Your task to perform on an android device: Search for vegetarian restaurants on Maps Image 0: 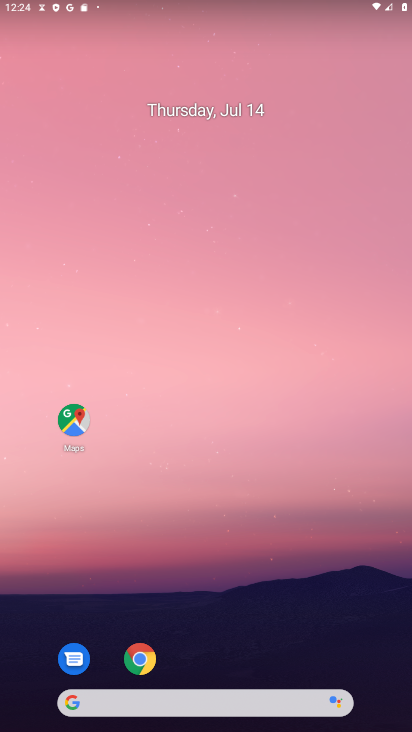
Step 0: click (77, 427)
Your task to perform on an android device: Search for vegetarian restaurants on Maps Image 1: 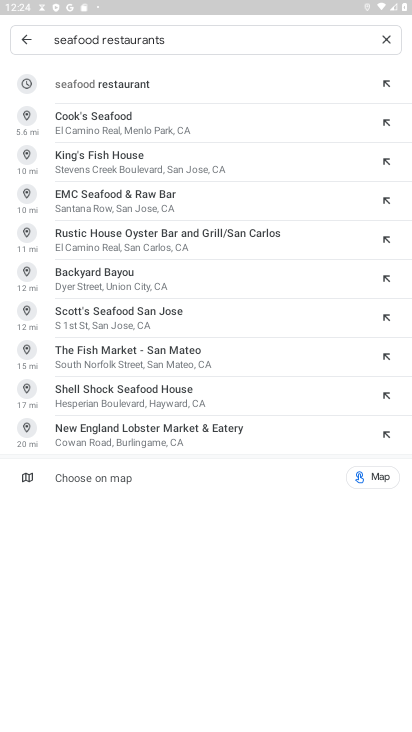
Step 1: click (382, 37)
Your task to perform on an android device: Search for vegetarian restaurants on Maps Image 2: 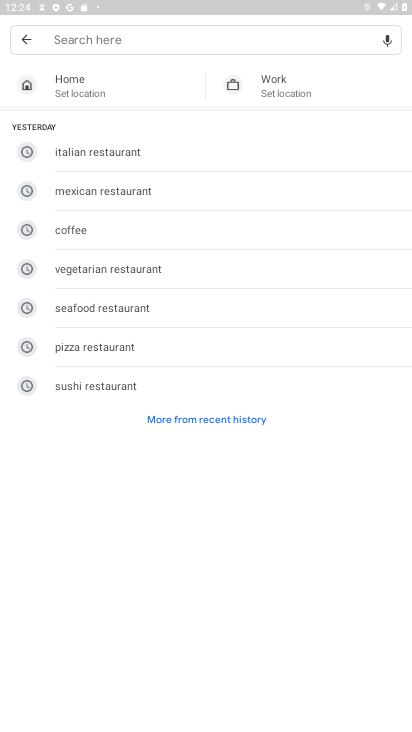
Step 2: click (80, 37)
Your task to perform on an android device: Search for vegetarian restaurants on Maps Image 3: 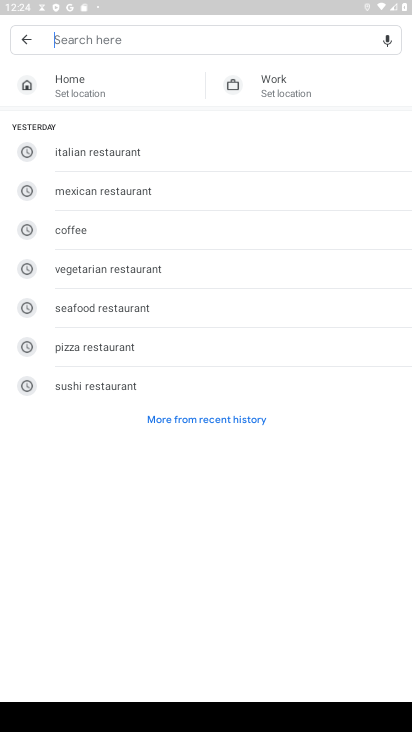
Step 3: click (85, 267)
Your task to perform on an android device: Search for vegetarian restaurants on Maps Image 4: 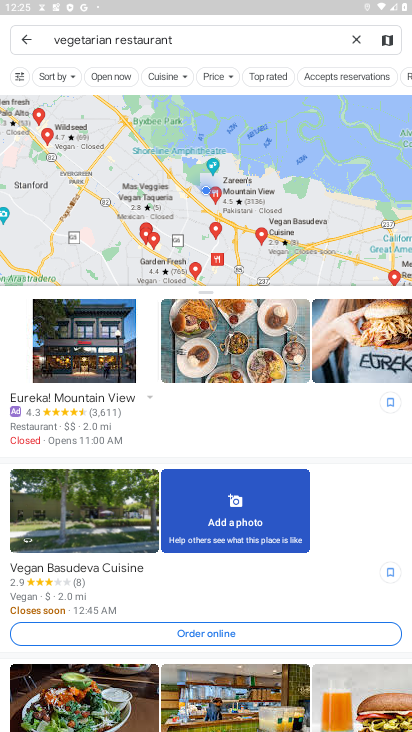
Step 4: task complete